Your task to perform on an android device: turn on improve location accuracy Image 0: 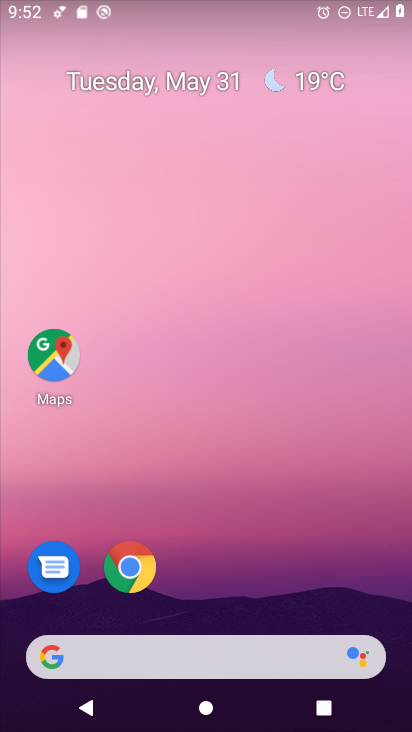
Step 0: drag from (140, 635) to (189, 81)
Your task to perform on an android device: turn on improve location accuracy Image 1: 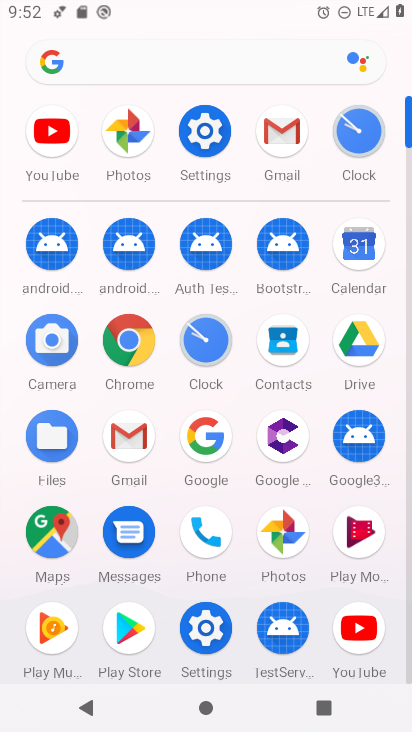
Step 1: click (206, 138)
Your task to perform on an android device: turn on improve location accuracy Image 2: 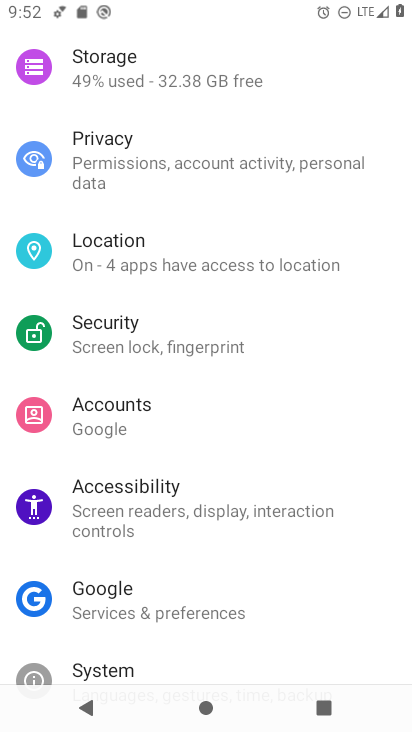
Step 2: drag from (188, 652) to (211, 293)
Your task to perform on an android device: turn on improve location accuracy Image 3: 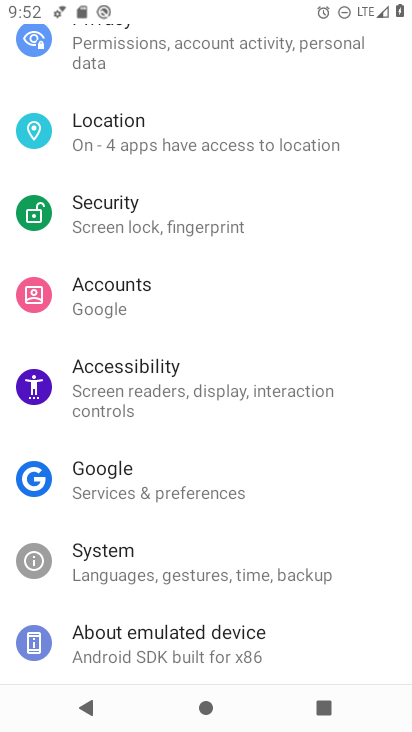
Step 3: click (138, 141)
Your task to perform on an android device: turn on improve location accuracy Image 4: 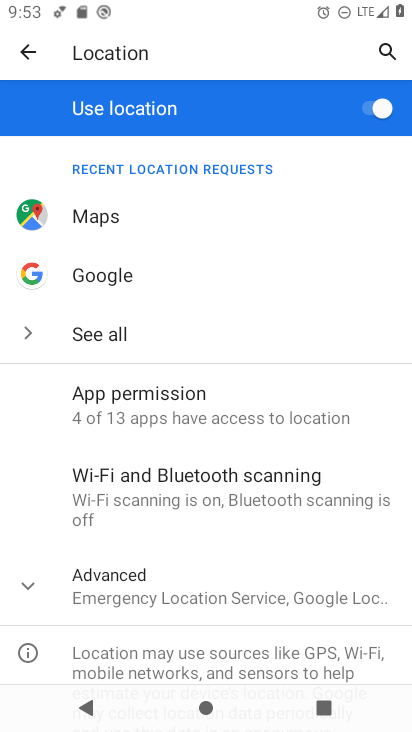
Step 4: click (112, 583)
Your task to perform on an android device: turn on improve location accuracy Image 5: 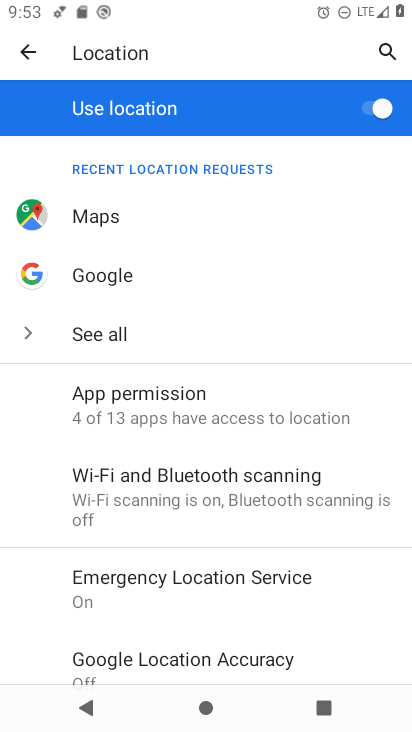
Step 5: drag from (169, 626) to (200, 350)
Your task to perform on an android device: turn on improve location accuracy Image 6: 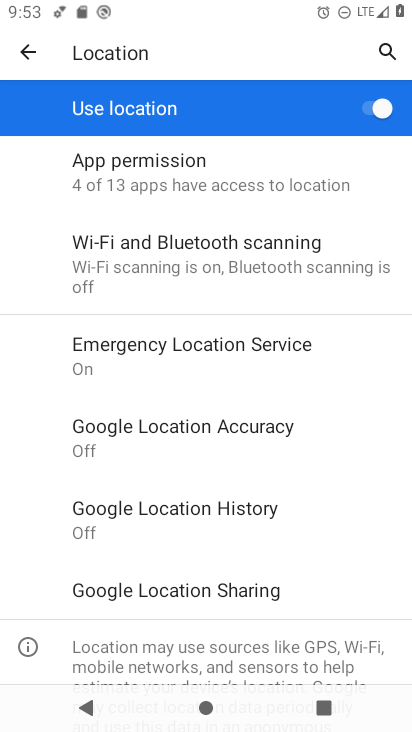
Step 6: click (222, 425)
Your task to perform on an android device: turn on improve location accuracy Image 7: 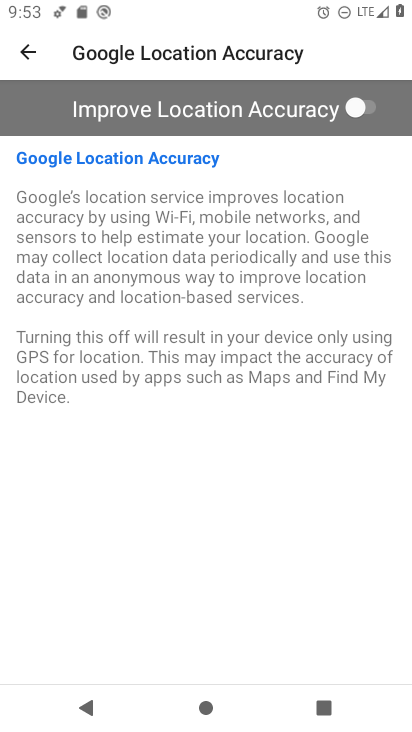
Step 7: click (367, 105)
Your task to perform on an android device: turn on improve location accuracy Image 8: 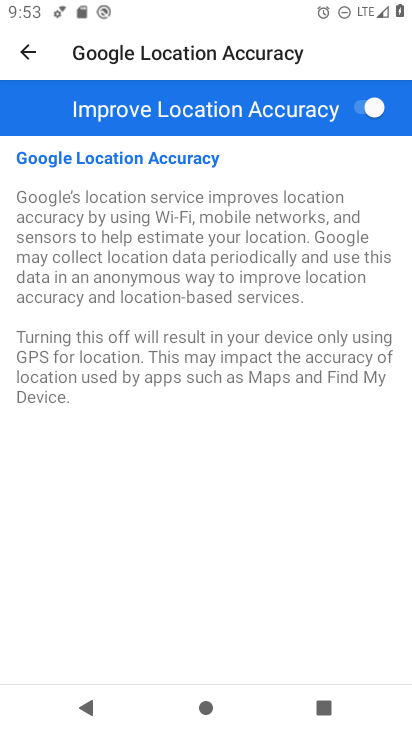
Step 8: task complete